Your task to perform on an android device: find photos in the google photos app Image 0: 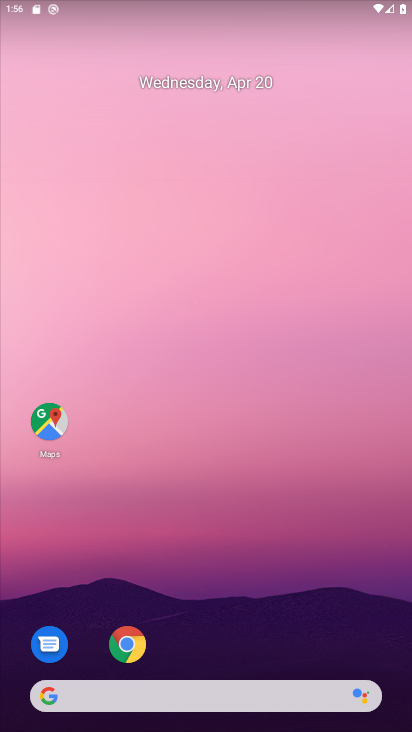
Step 0: drag from (239, 704) to (348, 6)
Your task to perform on an android device: find photos in the google photos app Image 1: 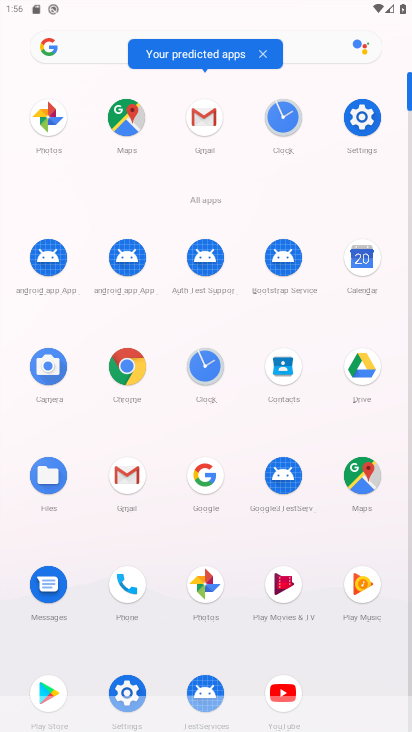
Step 1: click (207, 593)
Your task to perform on an android device: find photos in the google photos app Image 2: 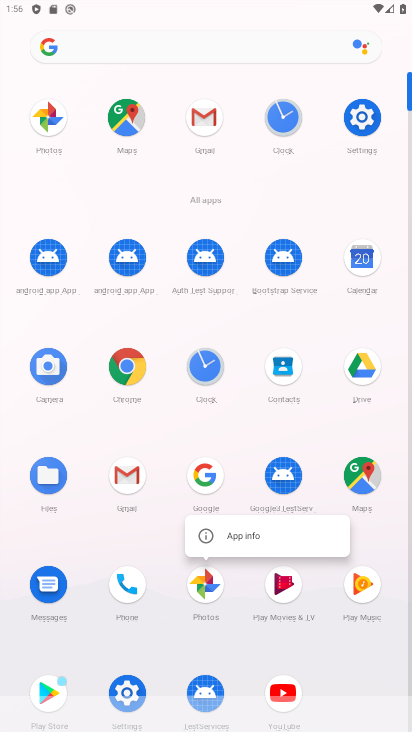
Step 2: click (215, 575)
Your task to perform on an android device: find photos in the google photos app Image 3: 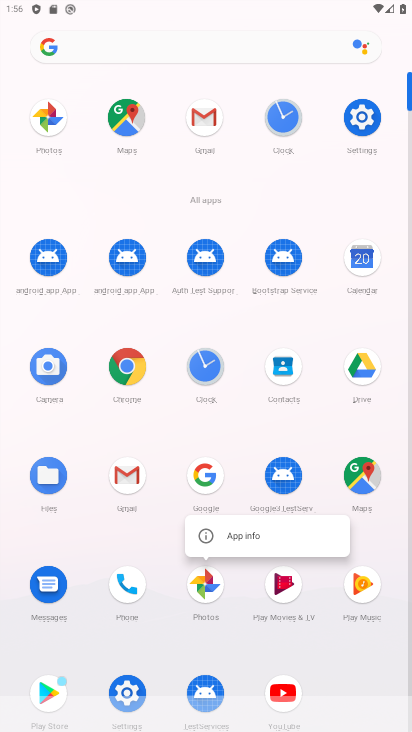
Step 3: click (214, 582)
Your task to perform on an android device: find photos in the google photos app Image 4: 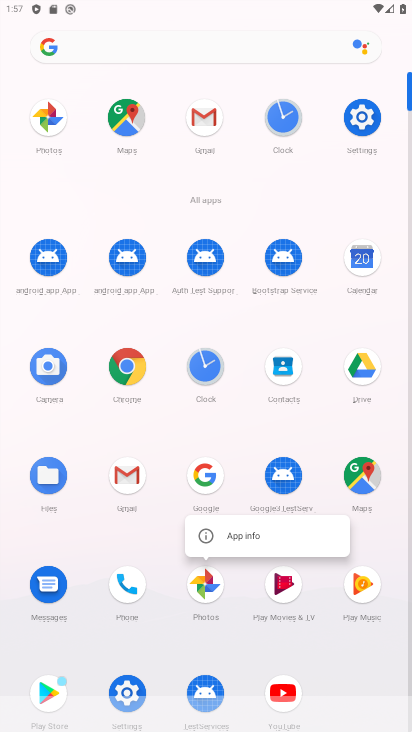
Step 4: click (207, 587)
Your task to perform on an android device: find photos in the google photos app Image 5: 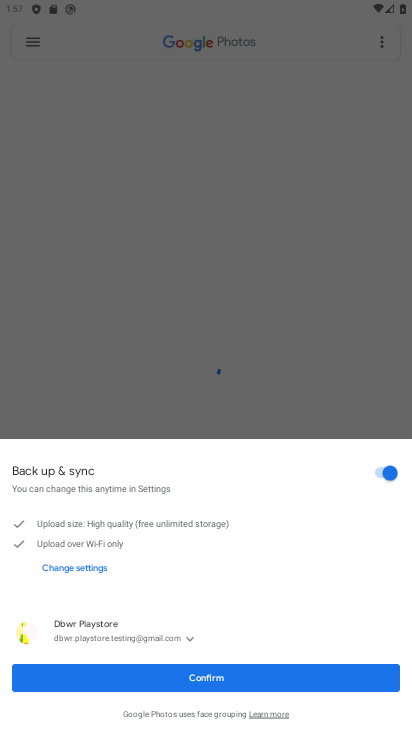
Step 5: click (261, 680)
Your task to perform on an android device: find photos in the google photos app Image 6: 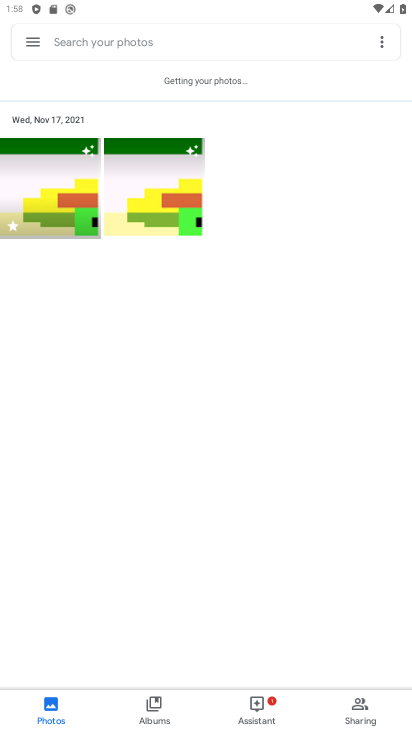
Step 6: task complete